Your task to perform on an android device: Go to notification settings Image 0: 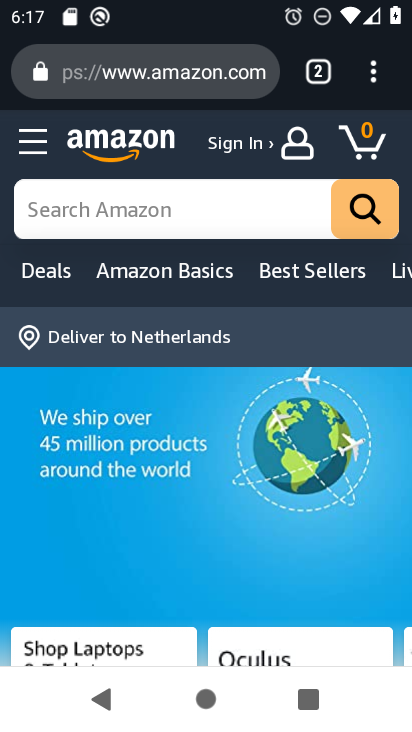
Step 0: press home button
Your task to perform on an android device: Go to notification settings Image 1: 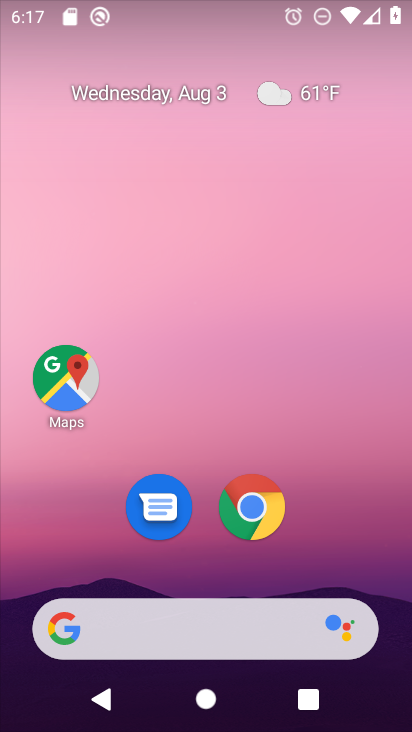
Step 1: drag from (358, 498) to (385, 75)
Your task to perform on an android device: Go to notification settings Image 2: 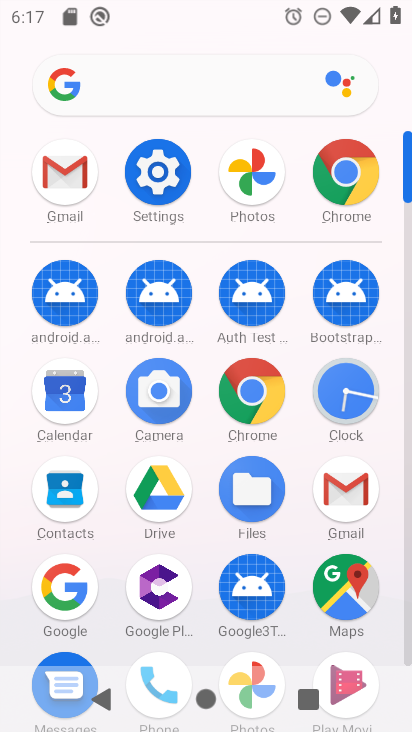
Step 2: click (162, 165)
Your task to perform on an android device: Go to notification settings Image 3: 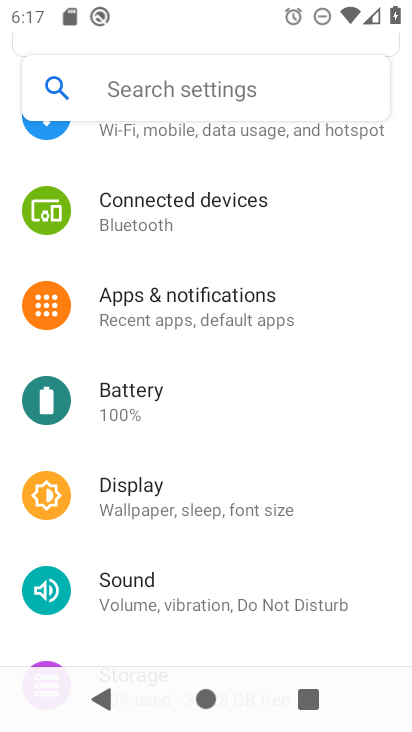
Step 3: drag from (223, 156) to (229, 499)
Your task to perform on an android device: Go to notification settings Image 4: 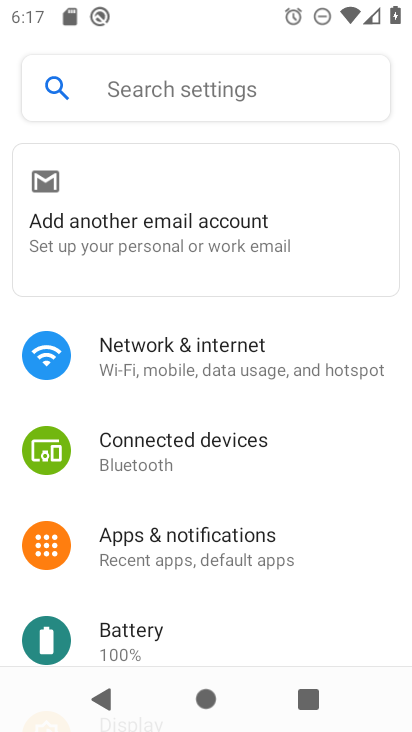
Step 4: click (239, 551)
Your task to perform on an android device: Go to notification settings Image 5: 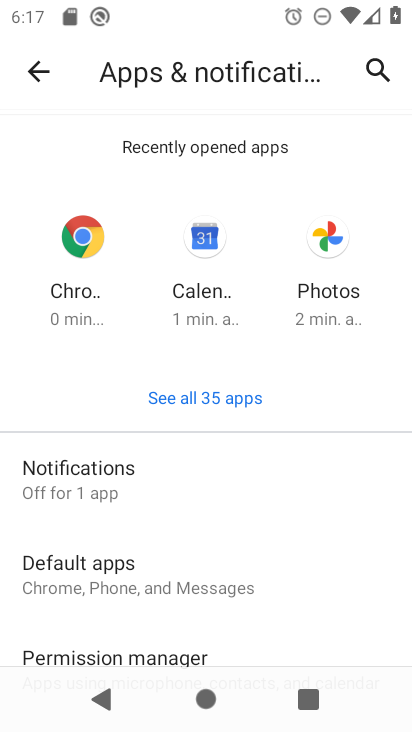
Step 5: click (117, 471)
Your task to perform on an android device: Go to notification settings Image 6: 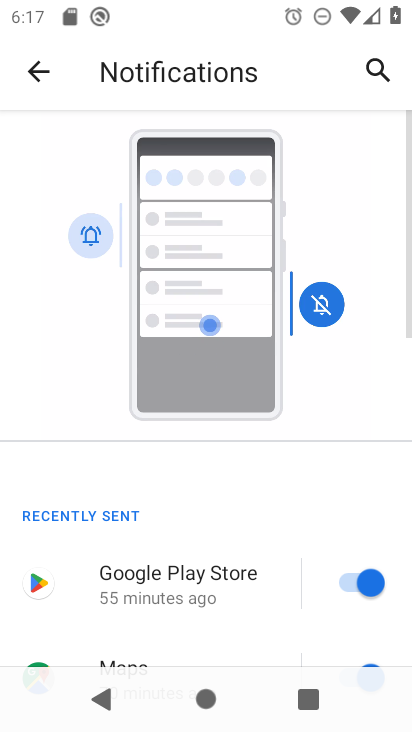
Step 6: task complete